Your task to perform on an android device: Go to Reddit.com Image 0: 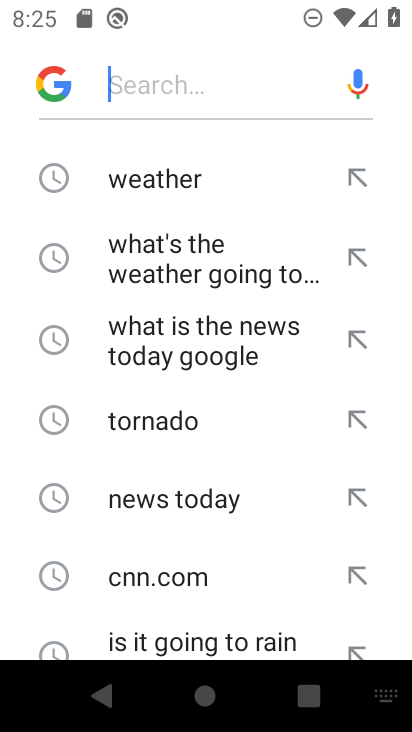
Step 0: type "Reddit.com"
Your task to perform on an android device: Go to Reddit.com Image 1: 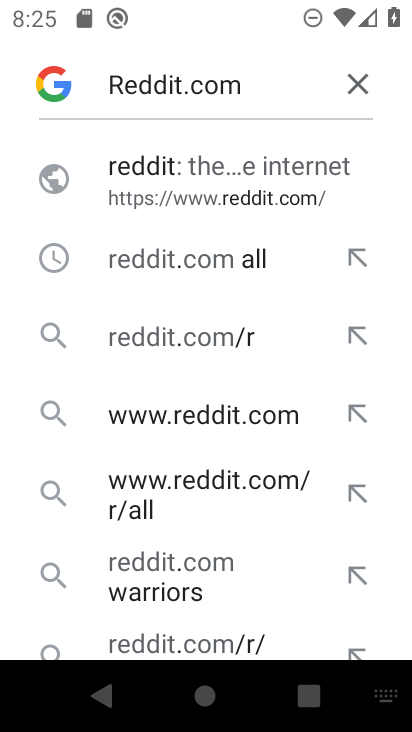
Step 1: click (212, 179)
Your task to perform on an android device: Go to Reddit.com Image 2: 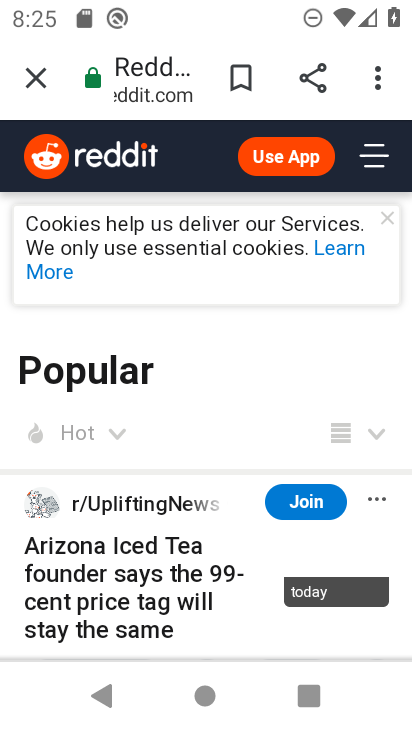
Step 2: task complete